Your task to perform on an android device: toggle data saver in the chrome app Image 0: 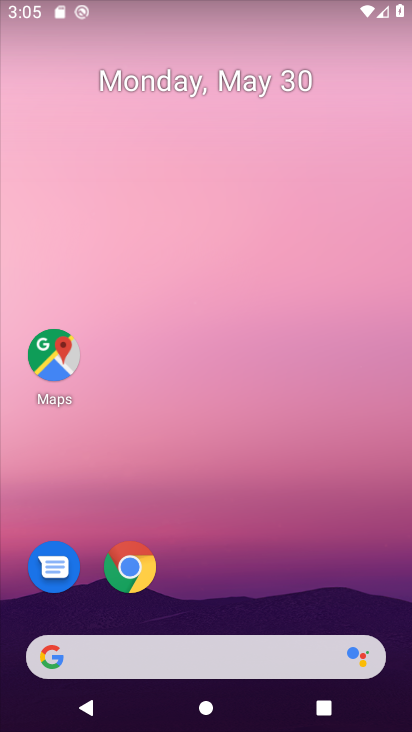
Step 0: click (129, 556)
Your task to perform on an android device: toggle data saver in the chrome app Image 1: 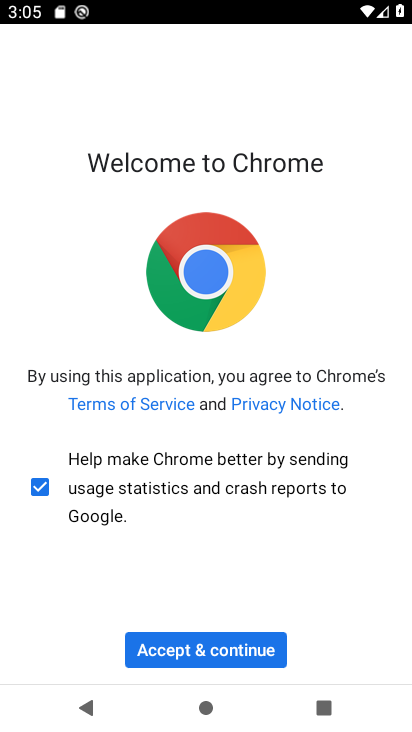
Step 1: click (219, 635)
Your task to perform on an android device: toggle data saver in the chrome app Image 2: 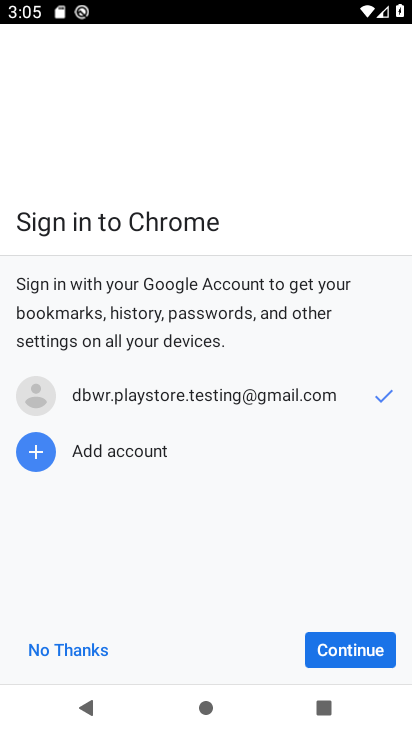
Step 2: click (366, 655)
Your task to perform on an android device: toggle data saver in the chrome app Image 3: 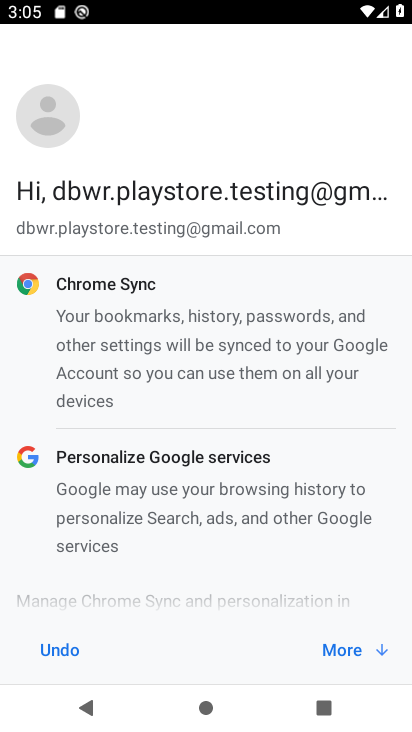
Step 3: click (346, 663)
Your task to perform on an android device: toggle data saver in the chrome app Image 4: 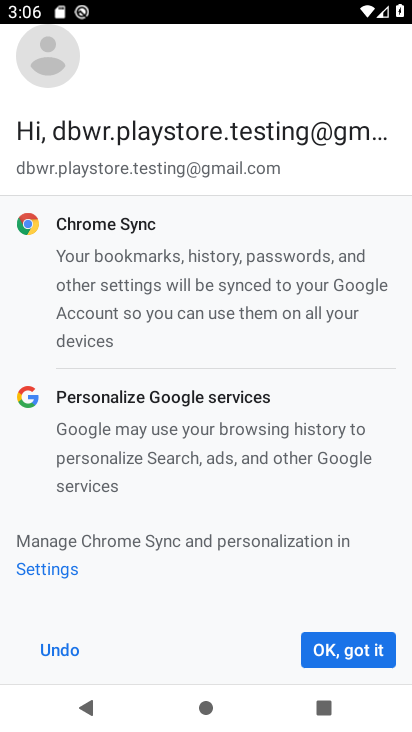
Step 4: click (376, 647)
Your task to perform on an android device: toggle data saver in the chrome app Image 5: 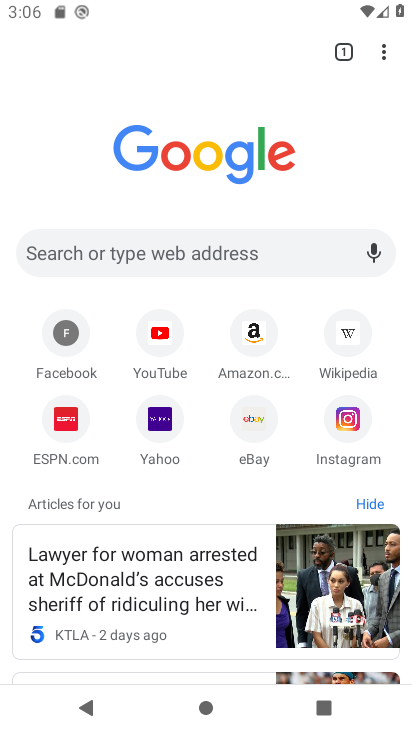
Step 5: click (377, 60)
Your task to perform on an android device: toggle data saver in the chrome app Image 6: 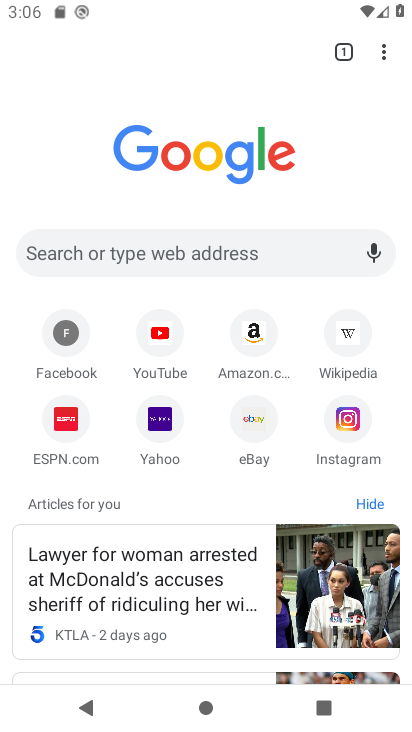
Step 6: click (383, 57)
Your task to perform on an android device: toggle data saver in the chrome app Image 7: 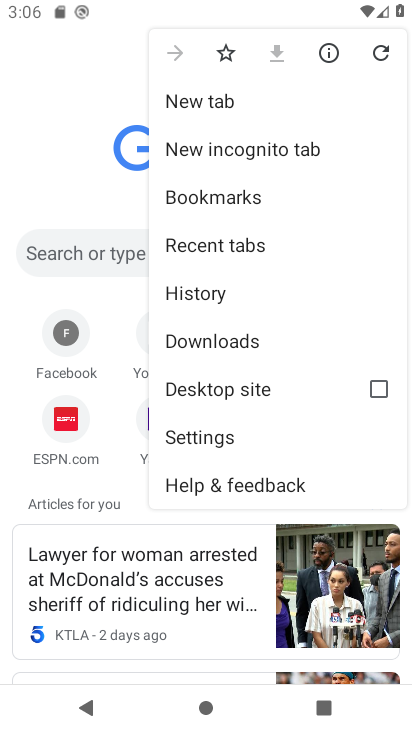
Step 7: click (241, 441)
Your task to perform on an android device: toggle data saver in the chrome app Image 8: 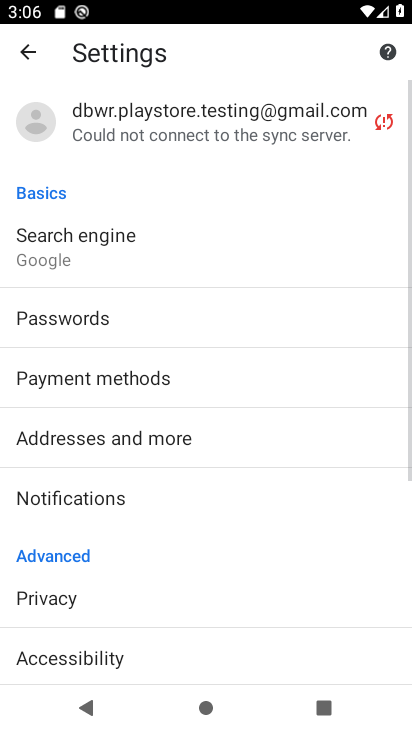
Step 8: drag from (152, 598) to (162, 102)
Your task to perform on an android device: toggle data saver in the chrome app Image 9: 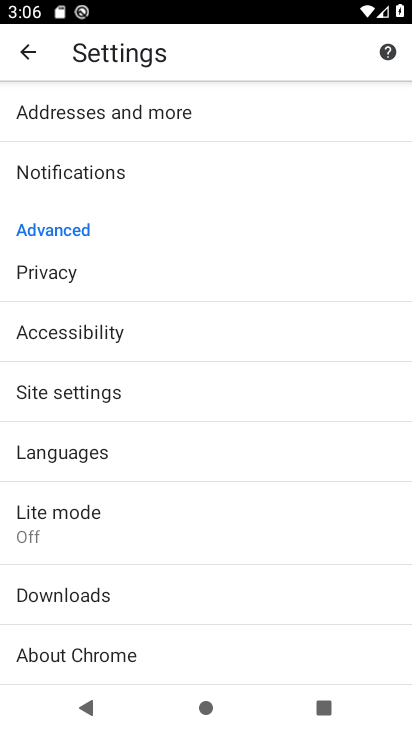
Step 9: click (93, 526)
Your task to perform on an android device: toggle data saver in the chrome app Image 10: 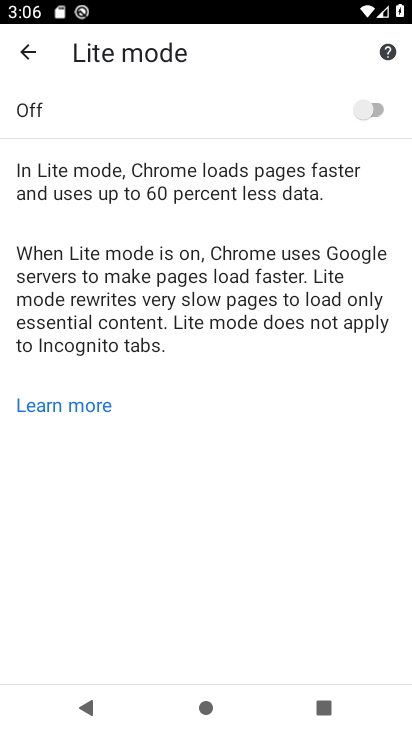
Step 10: click (352, 116)
Your task to perform on an android device: toggle data saver in the chrome app Image 11: 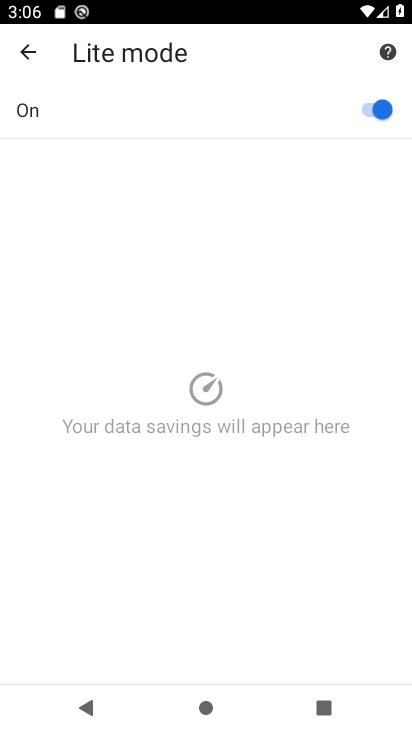
Step 11: task complete